Your task to perform on an android device: Open internet settings Image 0: 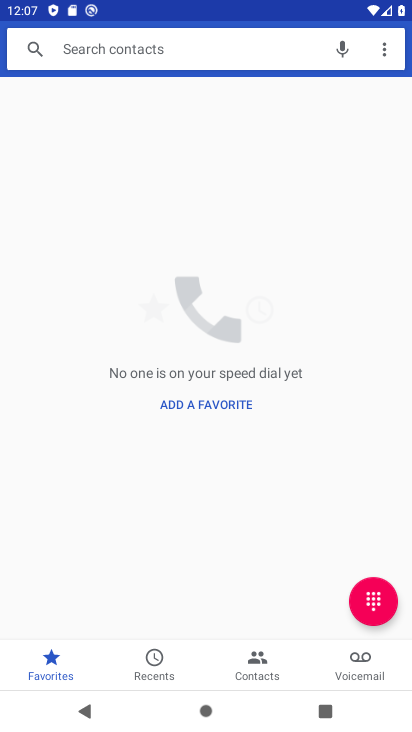
Step 0: press home button
Your task to perform on an android device: Open internet settings Image 1: 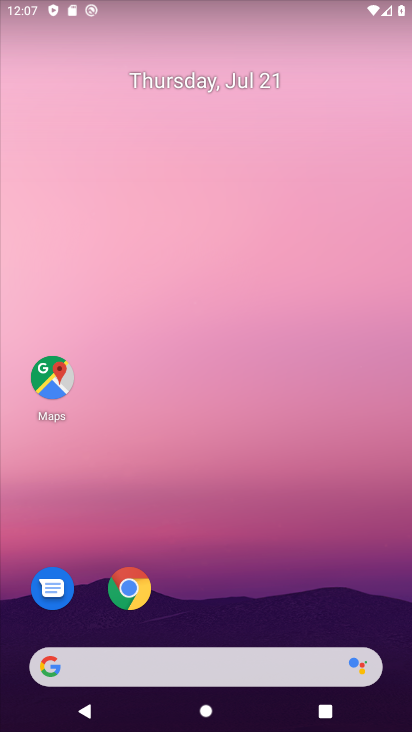
Step 1: drag from (215, 533) to (98, 8)
Your task to perform on an android device: Open internet settings Image 2: 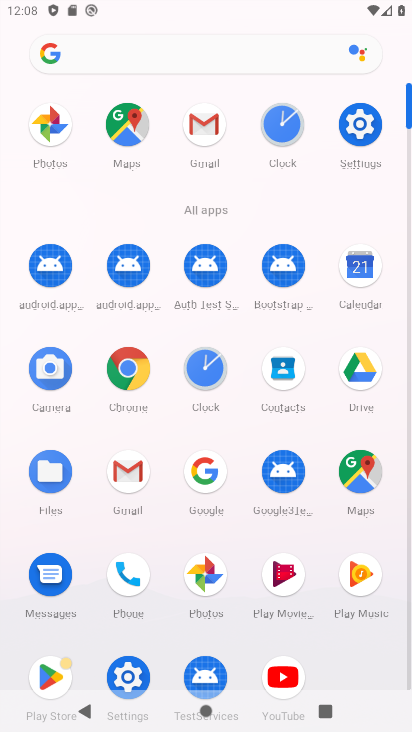
Step 2: click (367, 152)
Your task to perform on an android device: Open internet settings Image 3: 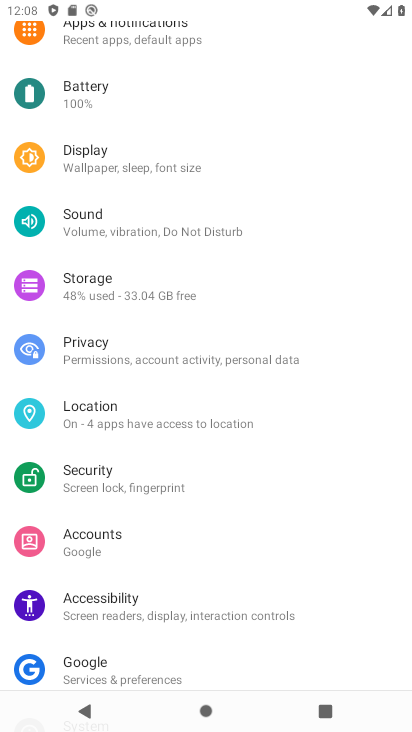
Step 3: drag from (156, 158) to (147, 462)
Your task to perform on an android device: Open internet settings Image 4: 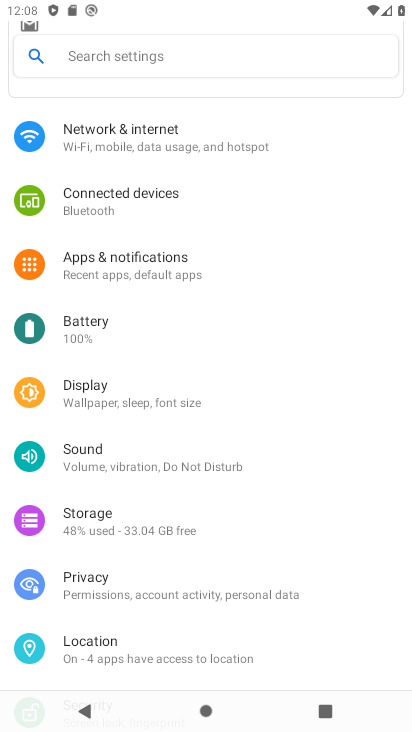
Step 4: click (152, 148)
Your task to perform on an android device: Open internet settings Image 5: 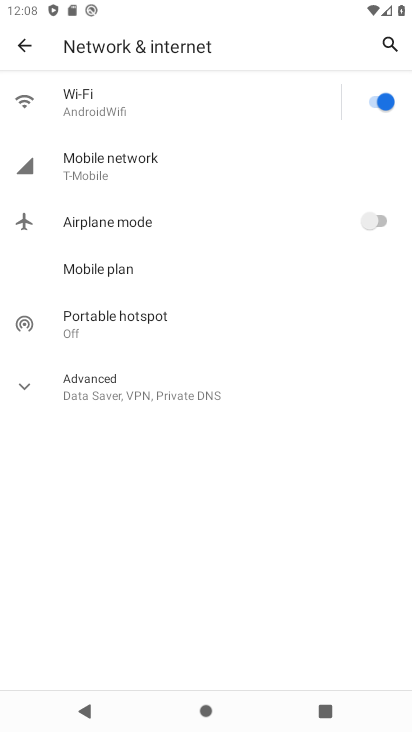
Step 5: task complete